Your task to perform on an android device: Empty the shopping cart on ebay.com. Image 0: 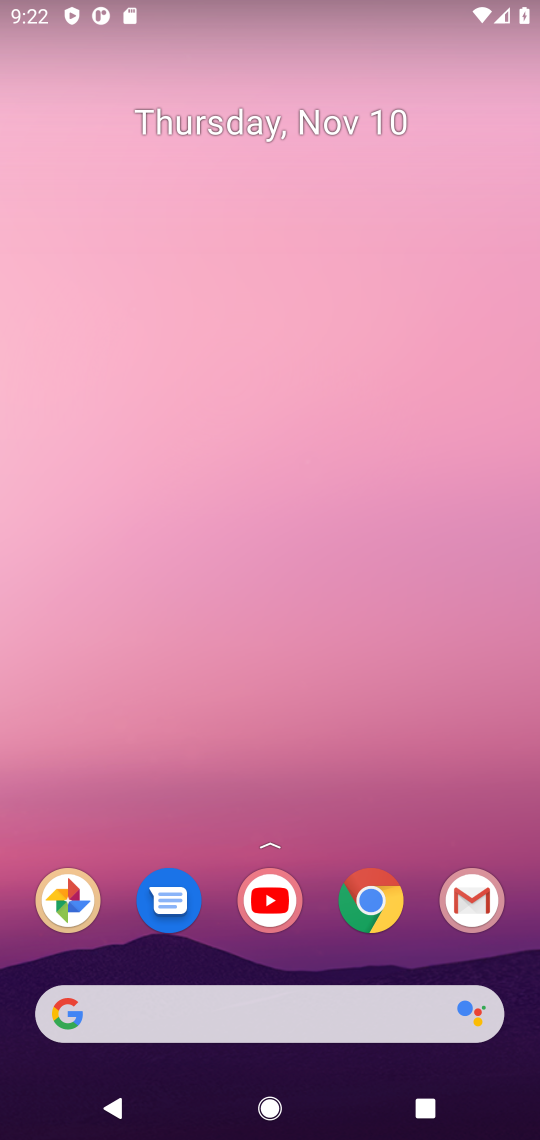
Step 0: click (365, 906)
Your task to perform on an android device: Empty the shopping cart on ebay.com. Image 1: 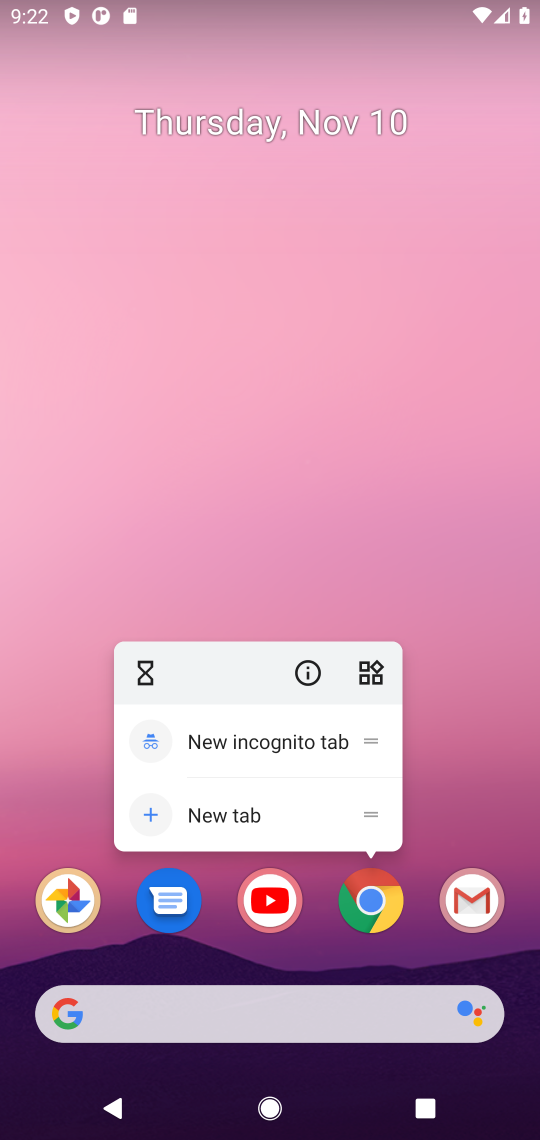
Step 1: click (371, 900)
Your task to perform on an android device: Empty the shopping cart on ebay.com. Image 2: 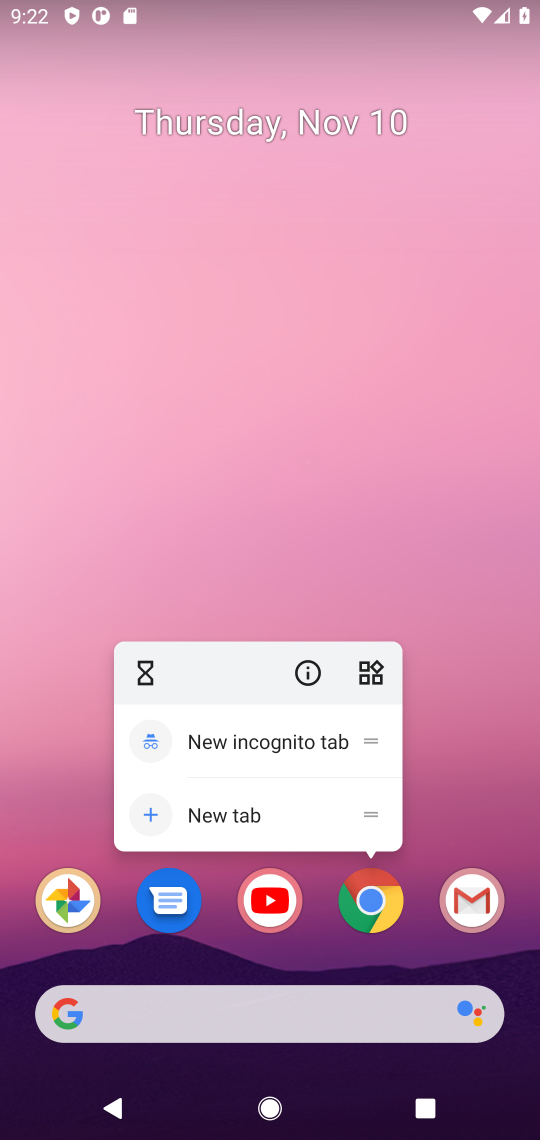
Step 2: click (371, 900)
Your task to perform on an android device: Empty the shopping cart on ebay.com. Image 3: 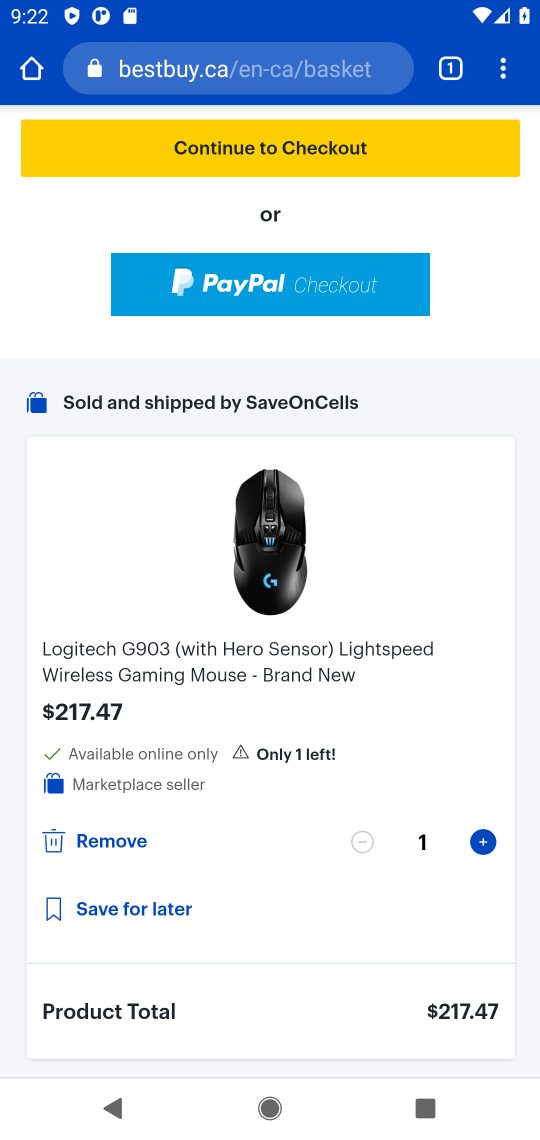
Step 3: click (258, 68)
Your task to perform on an android device: Empty the shopping cart on ebay.com. Image 4: 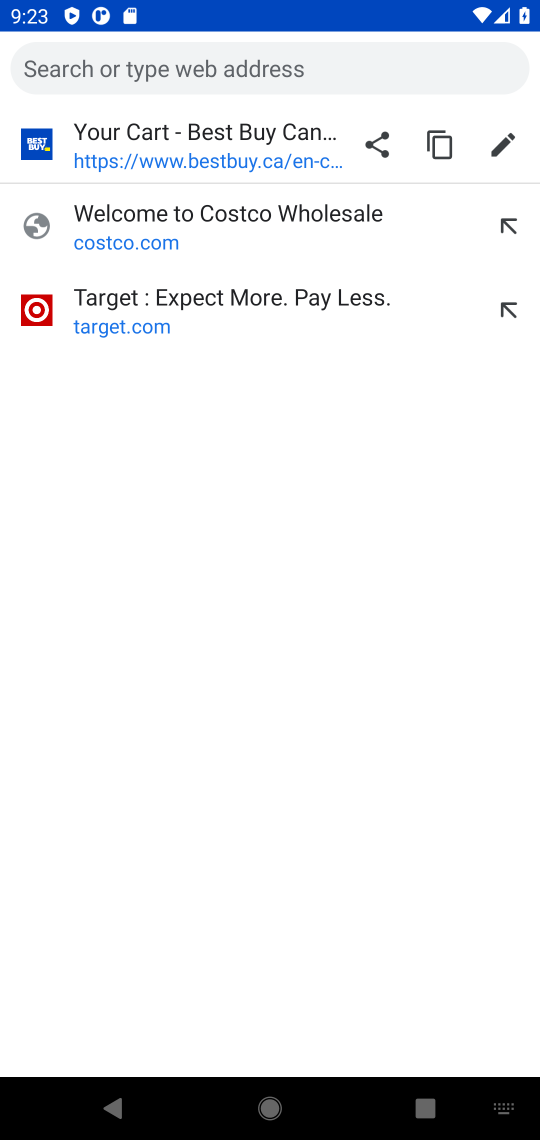
Step 4: type "ebay.com"
Your task to perform on an android device: Empty the shopping cart on ebay.com. Image 5: 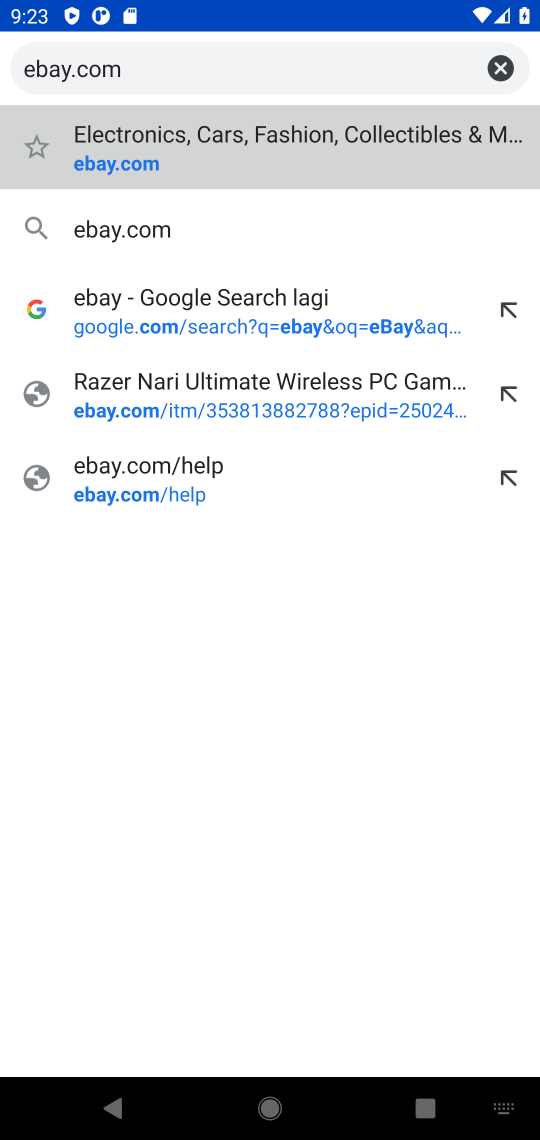
Step 5: press enter
Your task to perform on an android device: Empty the shopping cart on ebay.com. Image 6: 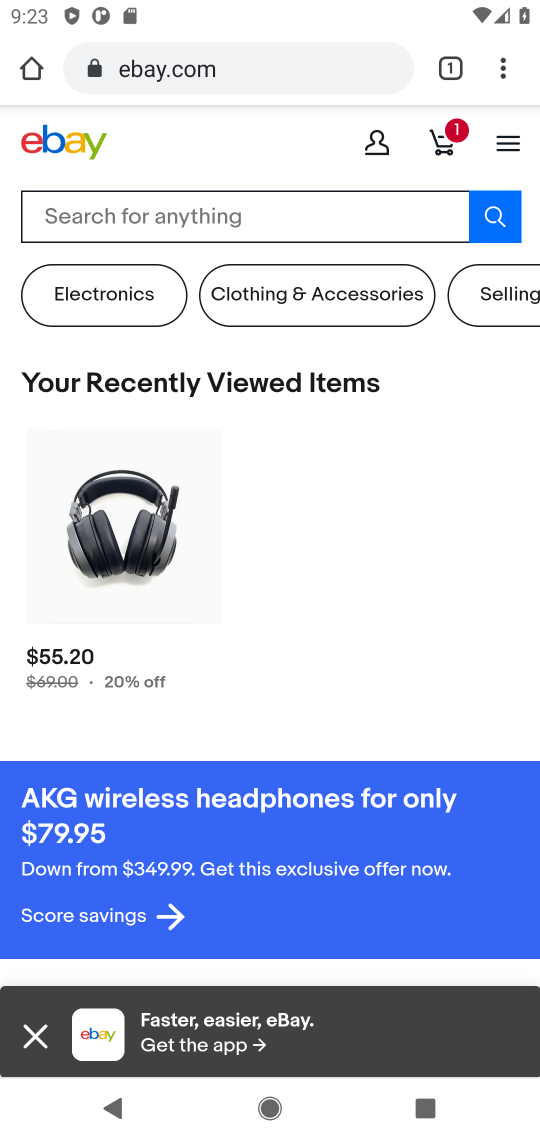
Step 6: click (446, 134)
Your task to perform on an android device: Empty the shopping cart on ebay.com. Image 7: 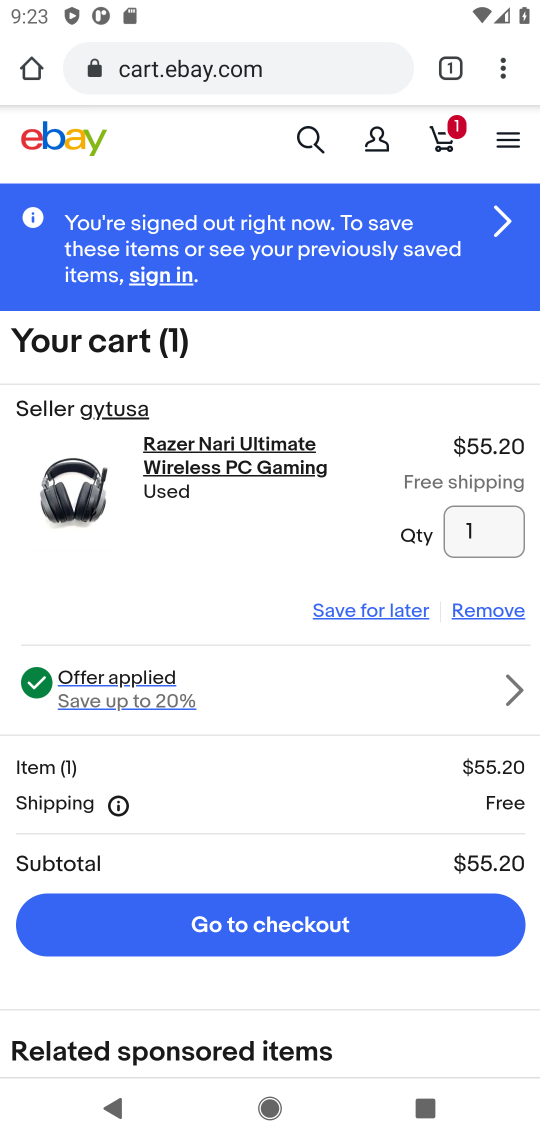
Step 7: click (492, 607)
Your task to perform on an android device: Empty the shopping cart on ebay.com. Image 8: 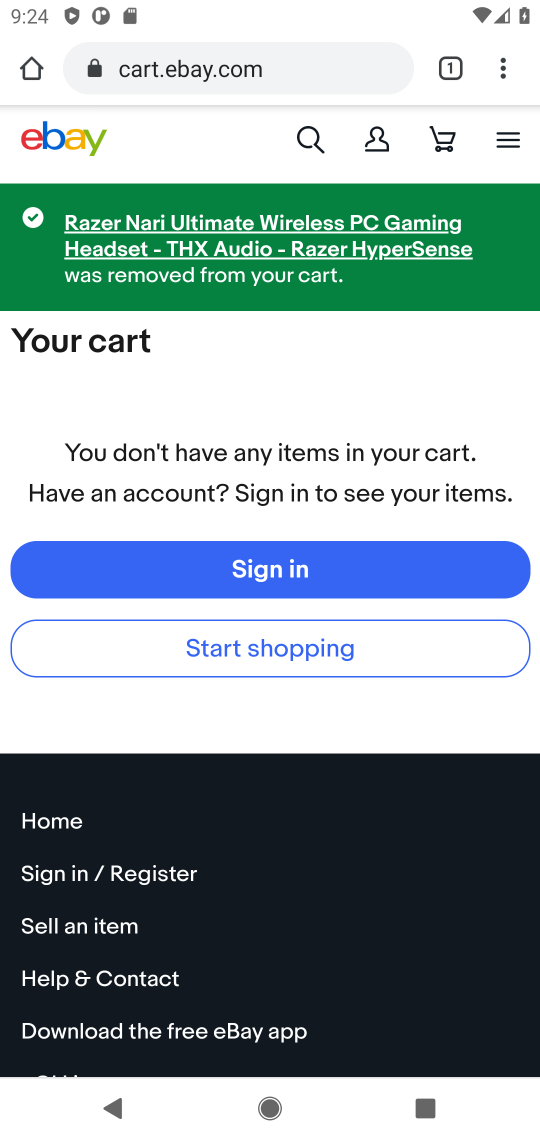
Step 8: task complete